Your task to perform on an android device: Look up the best rated coffee table on Ikea Image 0: 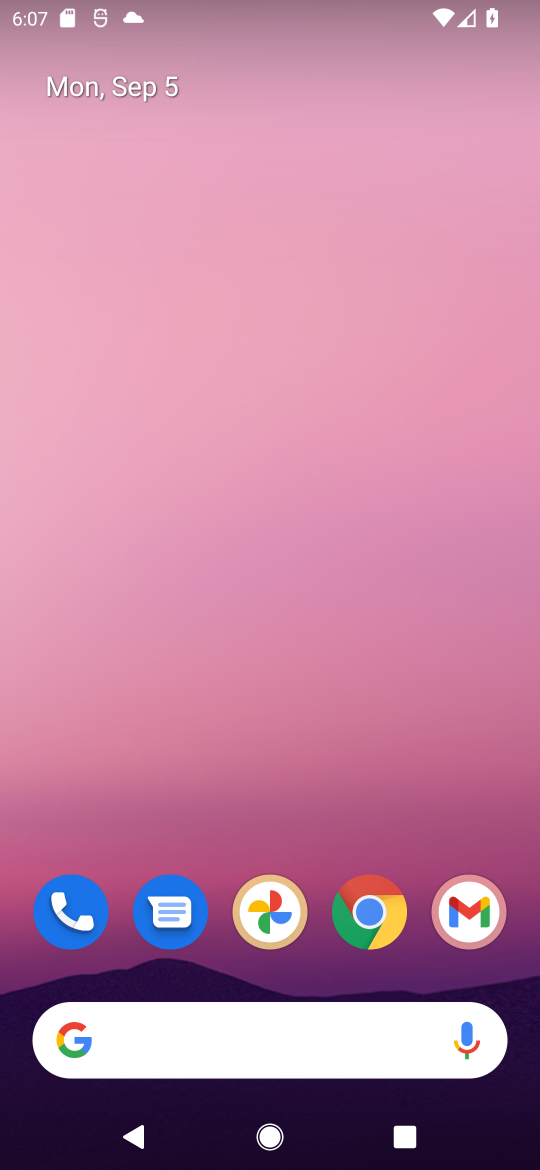
Step 0: click (379, 926)
Your task to perform on an android device: Look up the best rated coffee table on Ikea Image 1: 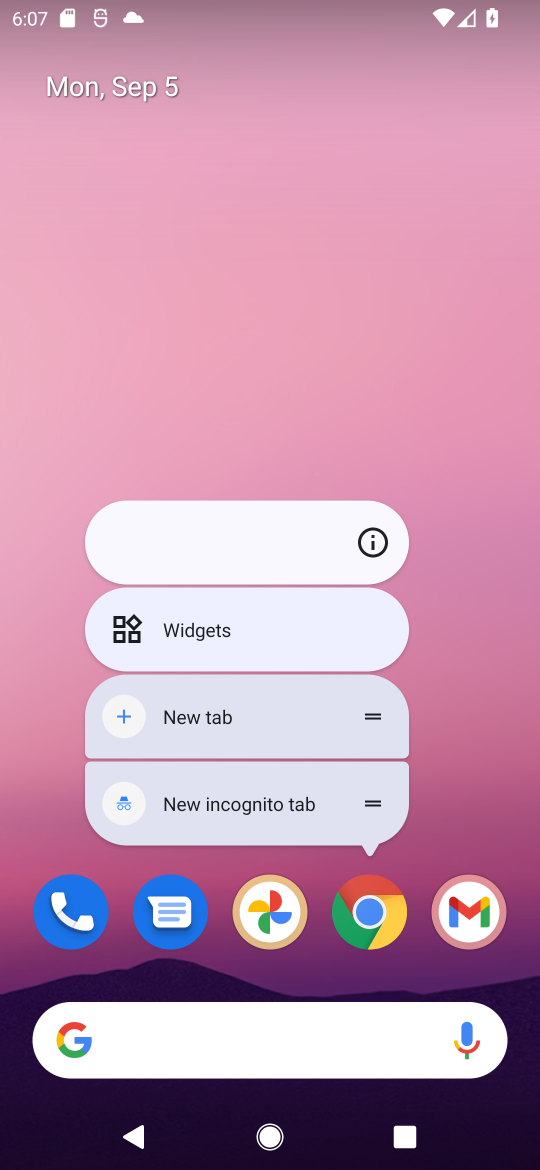
Step 1: click (378, 927)
Your task to perform on an android device: Look up the best rated coffee table on Ikea Image 2: 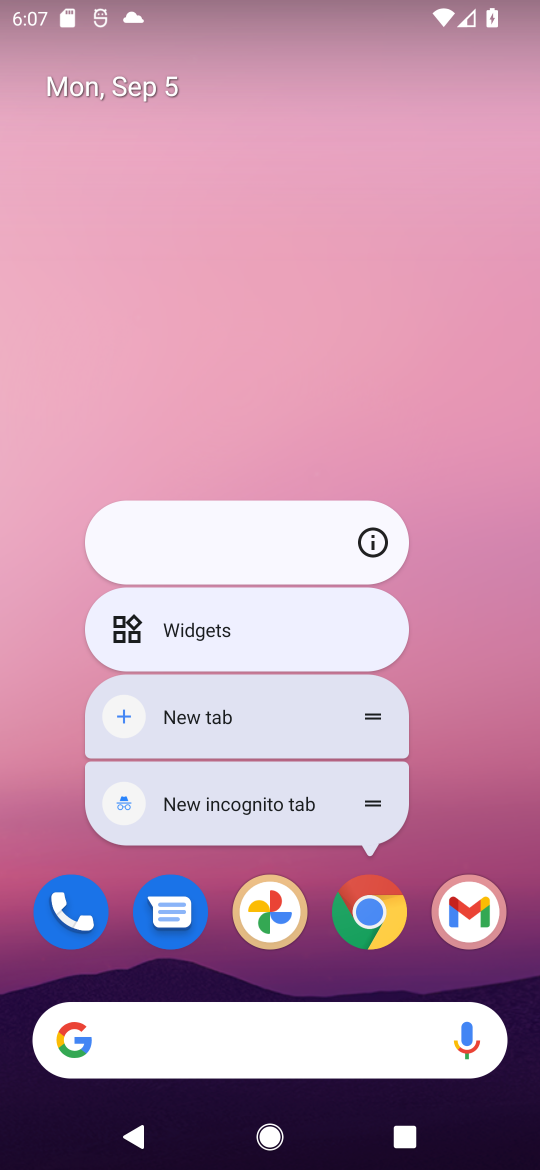
Step 2: click (368, 924)
Your task to perform on an android device: Look up the best rated coffee table on Ikea Image 3: 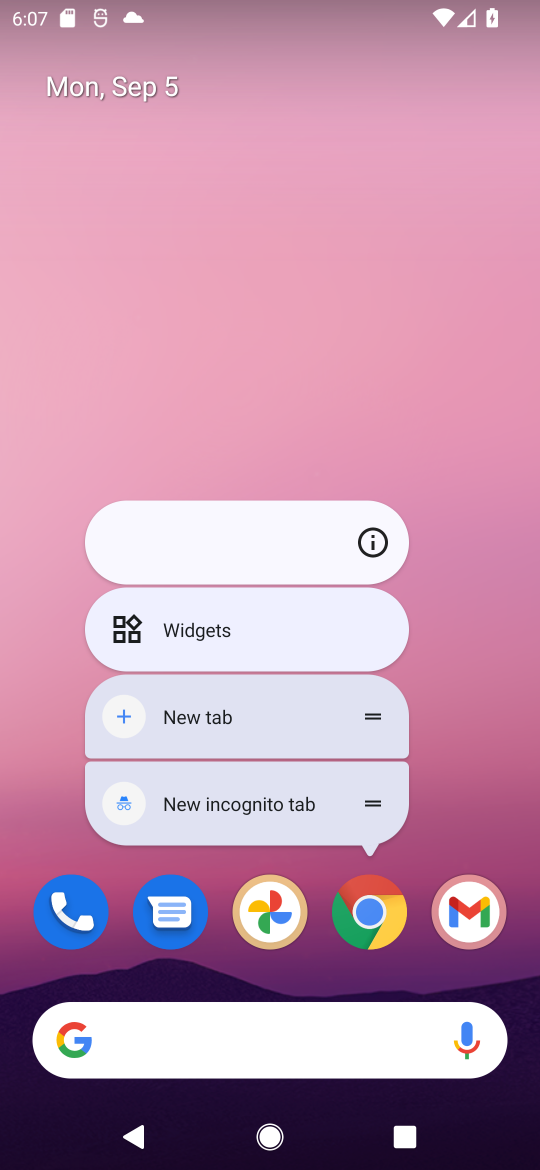
Step 3: click (368, 924)
Your task to perform on an android device: Look up the best rated coffee table on Ikea Image 4: 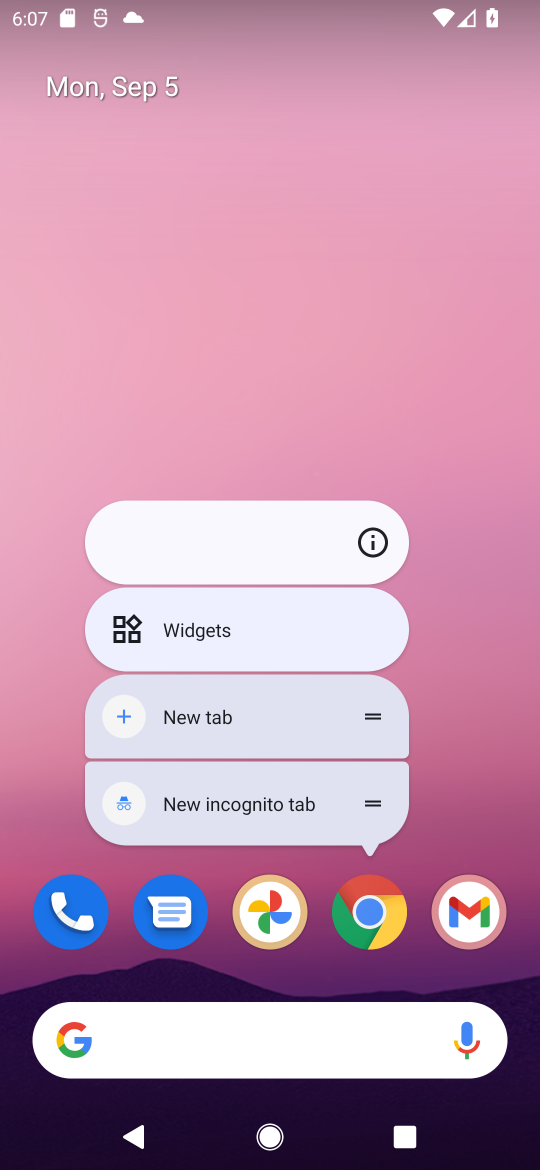
Step 4: click (358, 923)
Your task to perform on an android device: Look up the best rated coffee table on Ikea Image 5: 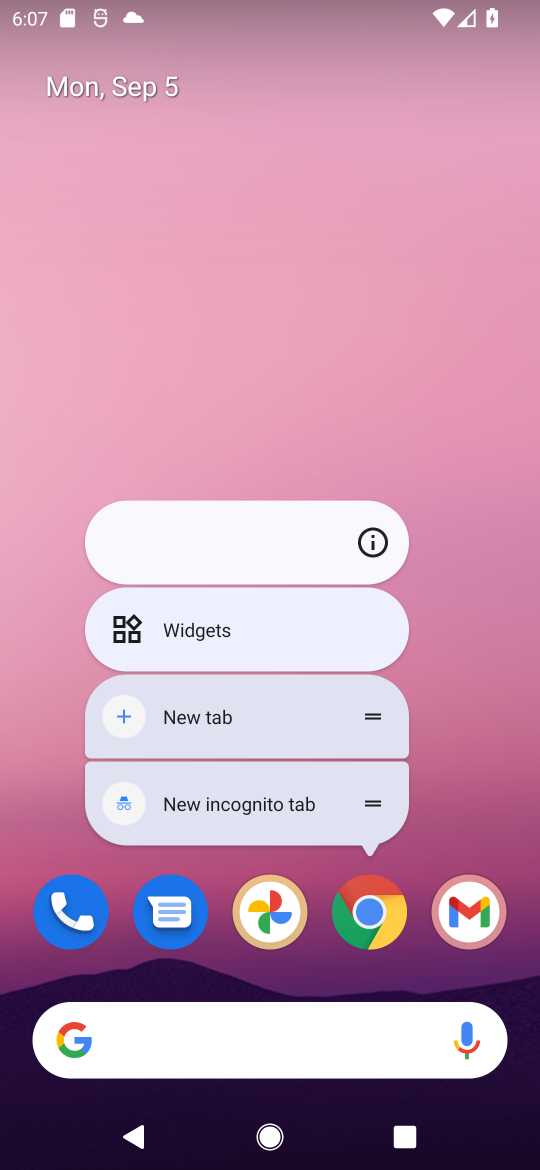
Step 5: click (361, 921)
Your task to perform on an android device: Look up the best rated coffee table on Ikea Image 6: 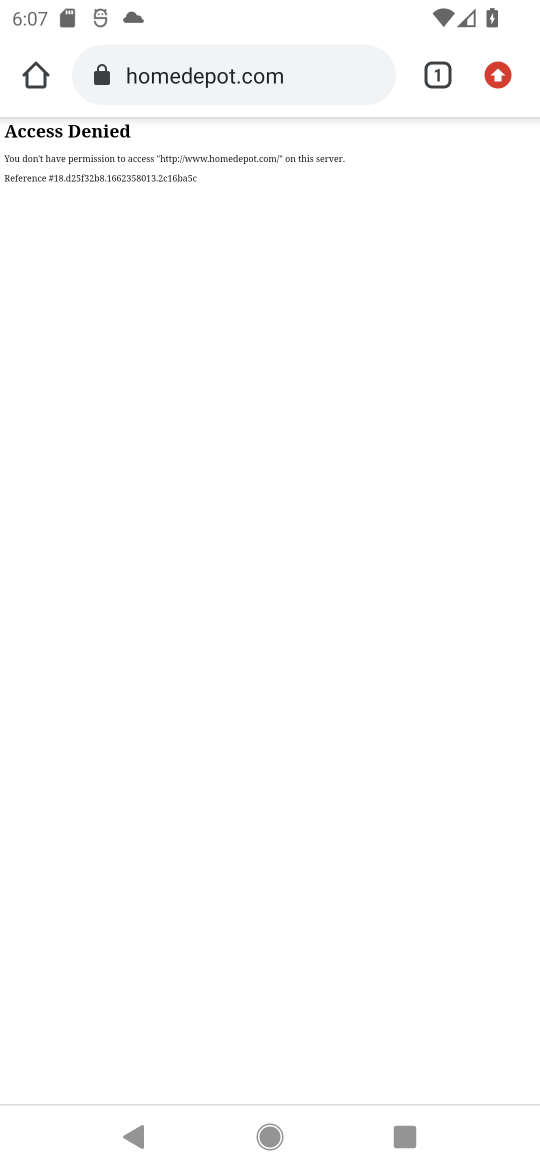
Step 6: click (209, 59)
Your task to perform on an android device: Look up the best rated coffee table on Ikea Image 7: 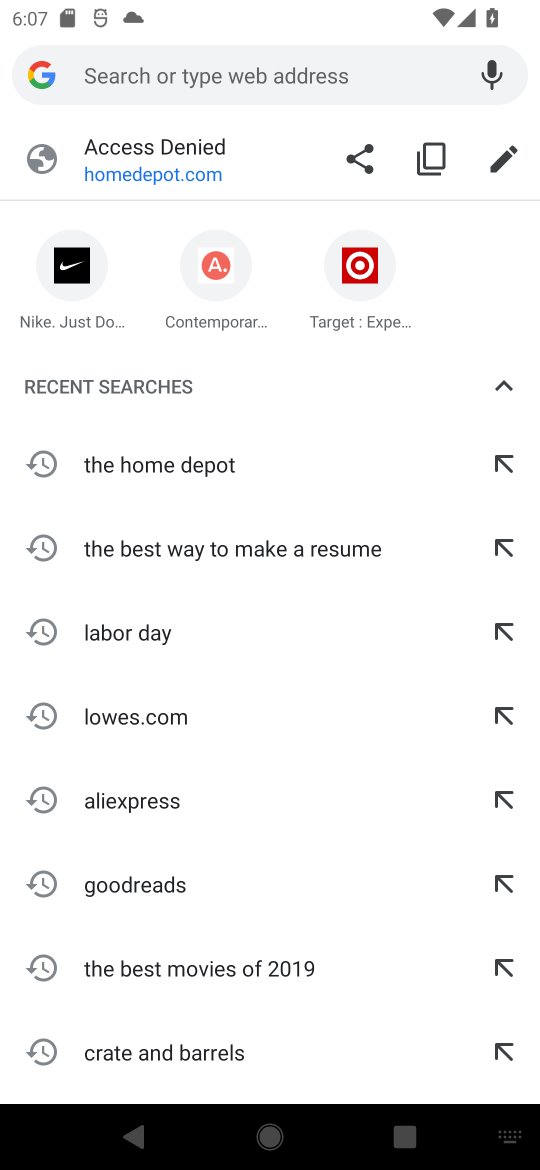
Step 7: type "ikea"
Your task to perform on an android device: Look up the best rated coffee table on Ikea Image 8: 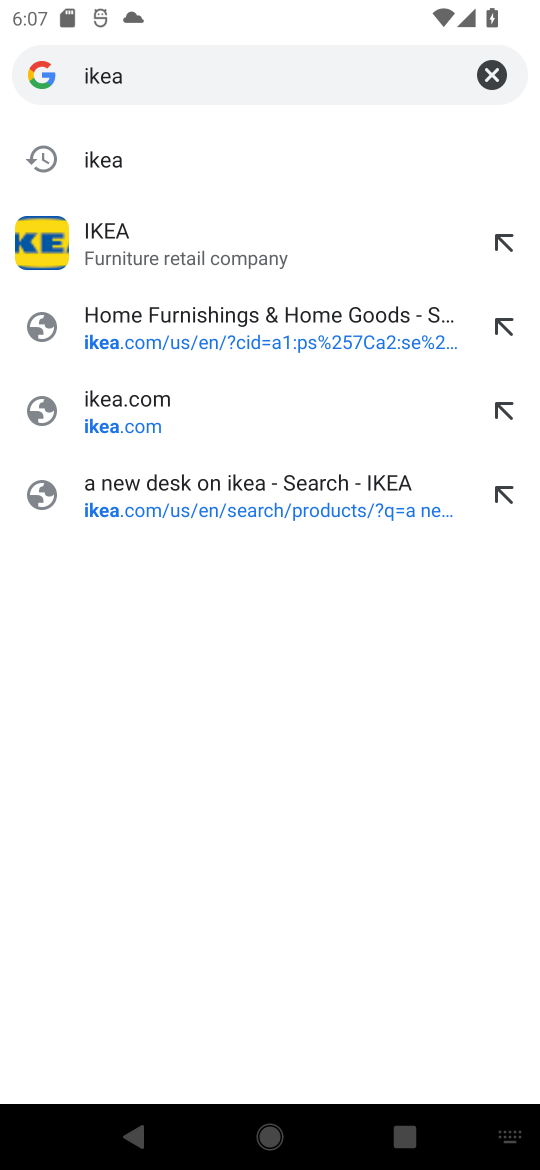
Step 8: click (169, 248)
Your task to perform on an android device: Look up the best rated coffee table on Ikea Image 9: 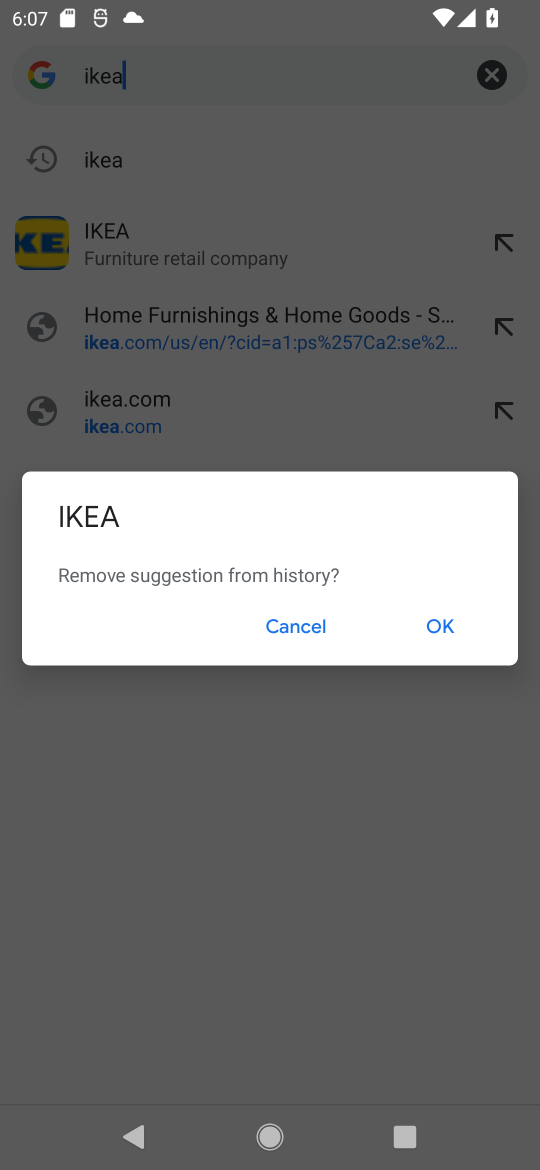
Step 9: click (304, 617)
Your task to perform on an android device: Look up the best rated coffee table on Ikea Image 10: 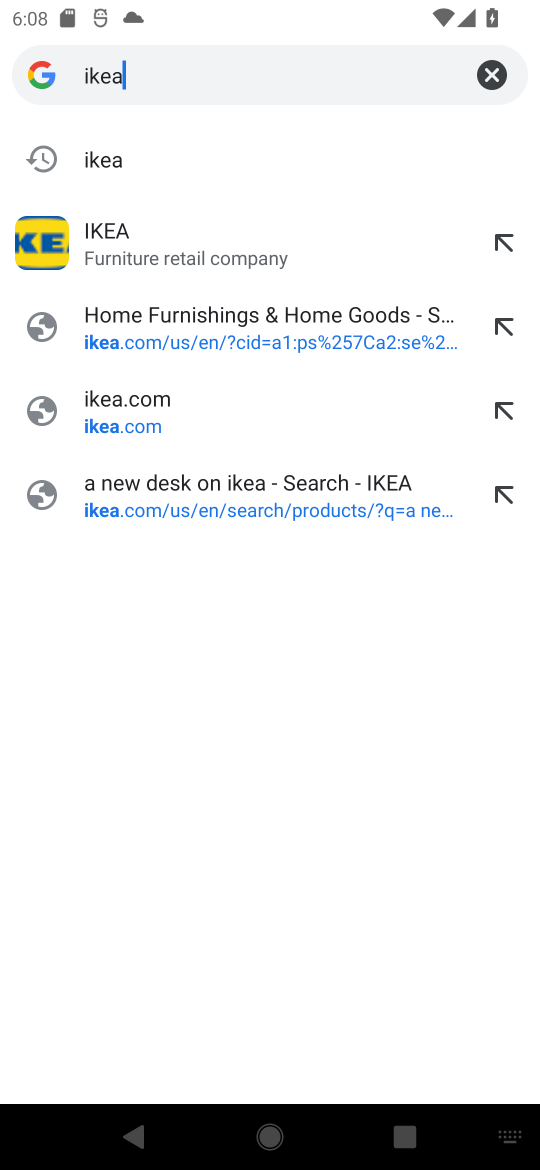
Step 10: click (205, 246)
Your task to perform on an android device: Look up the best rated coffee table on Ikea Image 11: 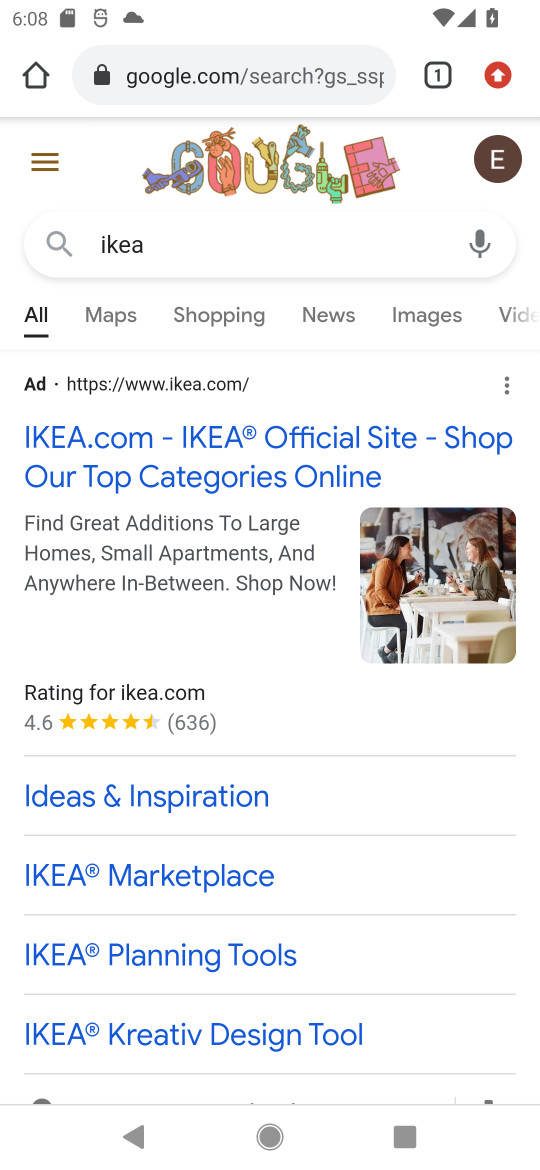
Step 11: click (165, 475)
Your task to perform on an android device: Look up the best rated coffee table on Ikea Image 12: 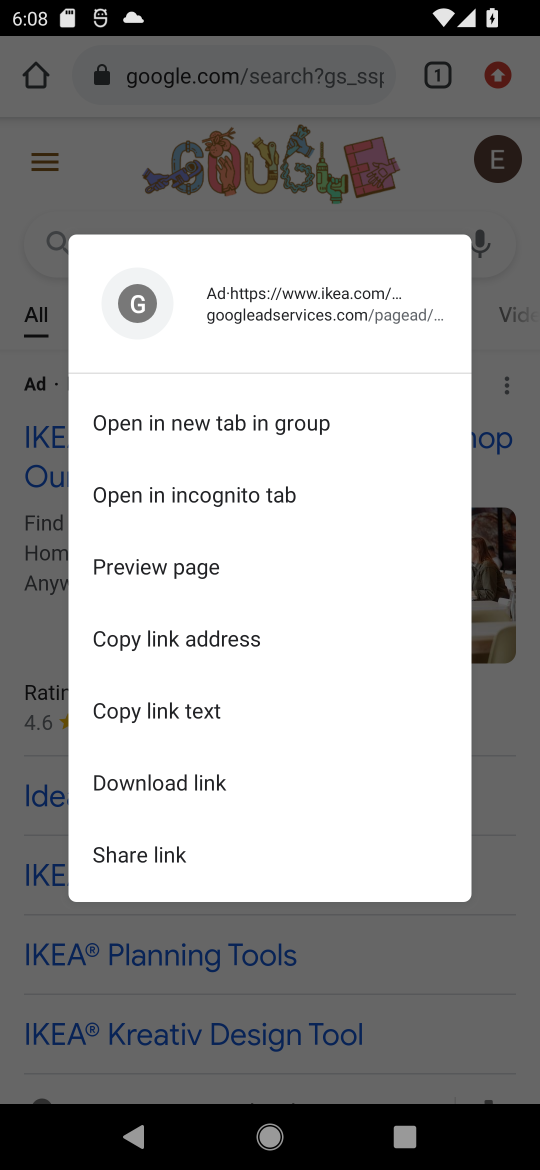
Step 12: click (45, 469)
Your task to perform on an android device: Look up the best rated coffee table on Ikea Image 13: 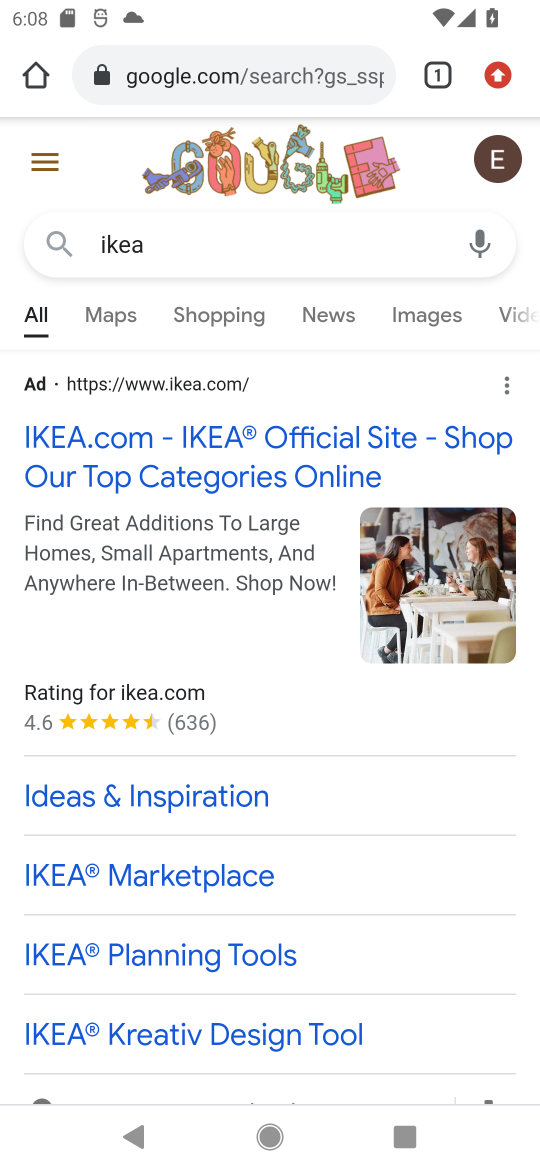
Step 13: click (175, 466)
Your task to perform on an android device: Look up the best rated coffee table on Ikea Image 14: 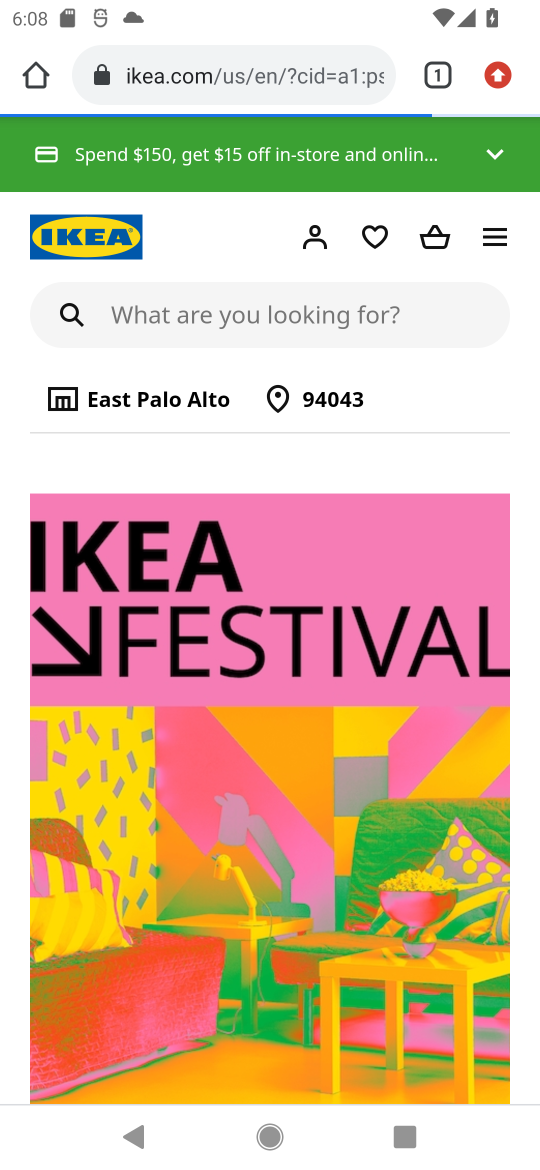
Step 14: click (316, 312)
Your task to perform on an android device: Look up the best rated coffee table on Ikea Image 15: 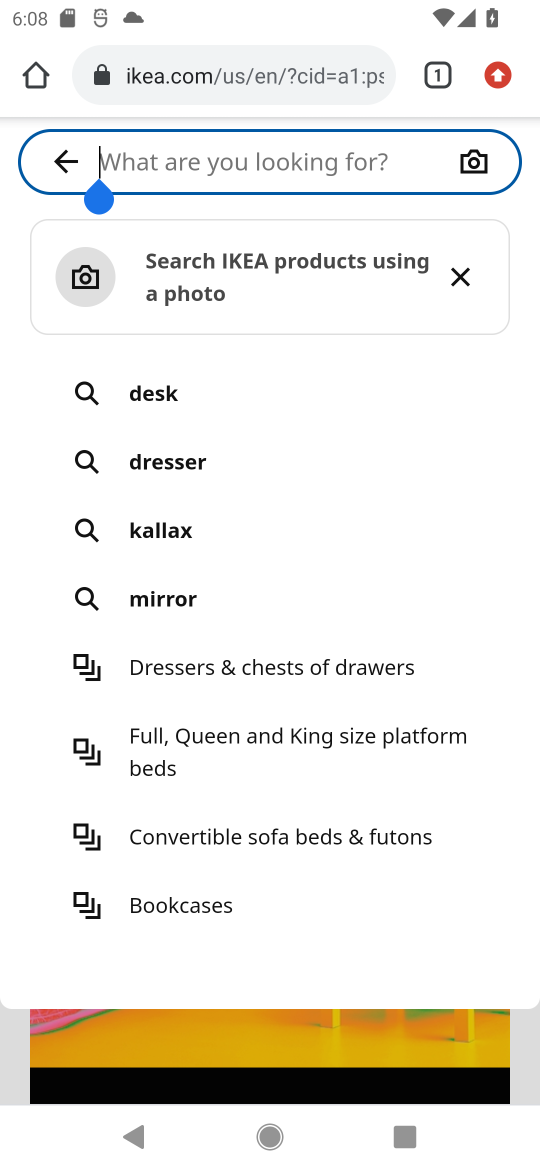
Step 15: type "the best rated coffee table"
Your task to perform on an android device: Look up the best rated coffee table on Ikea Image 16: 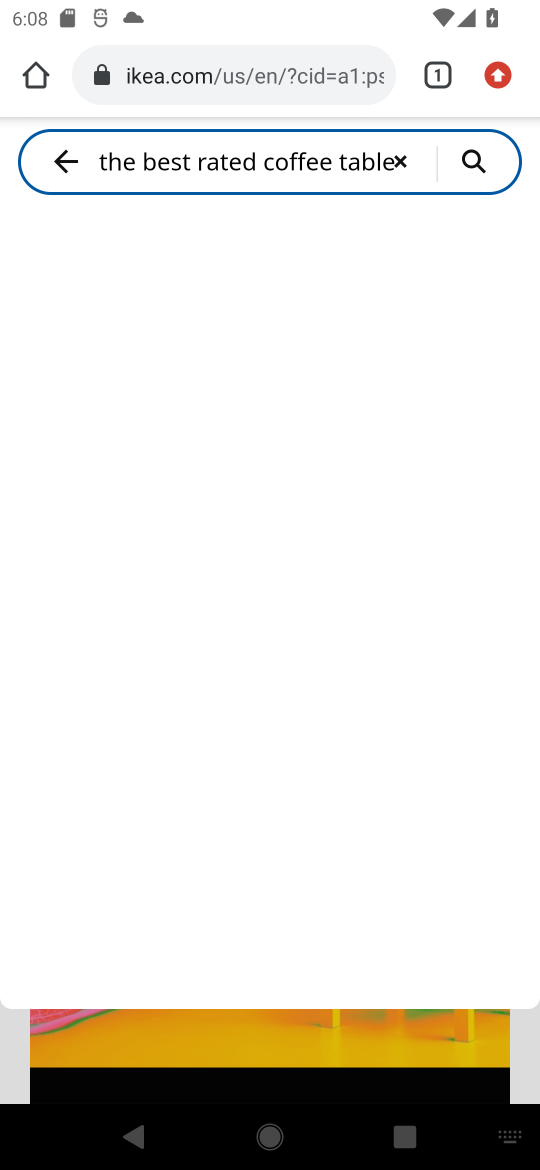
Step 16: click (476, 158)
Your task to perform on an android device: Look up the best rated coffee table on Ikea Image 17: 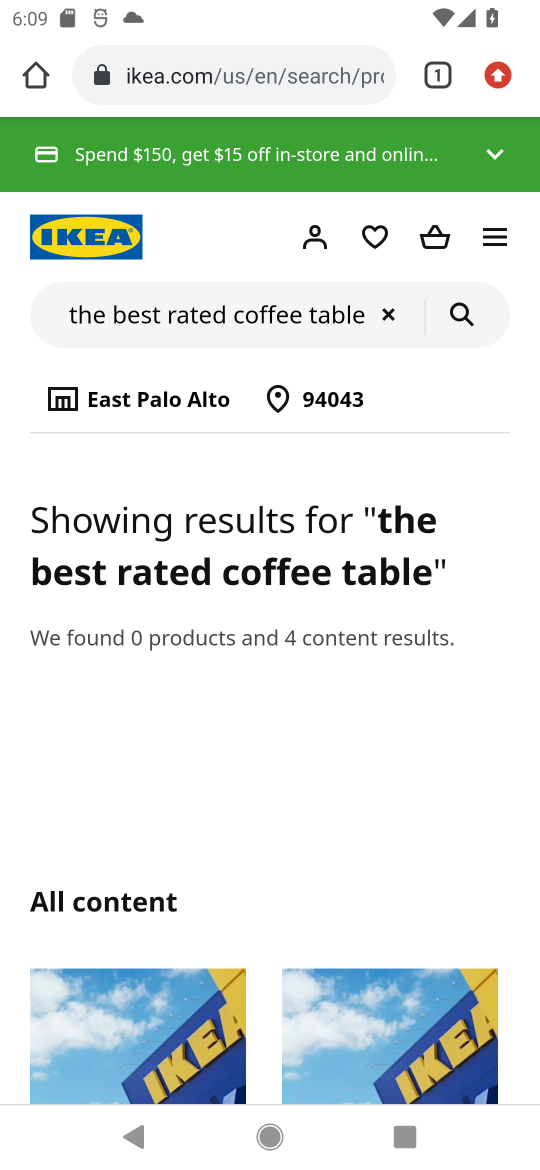
Step 17: task complete